Your task to perform on an android device: Set the phone to "Do not disturb". Image 0: 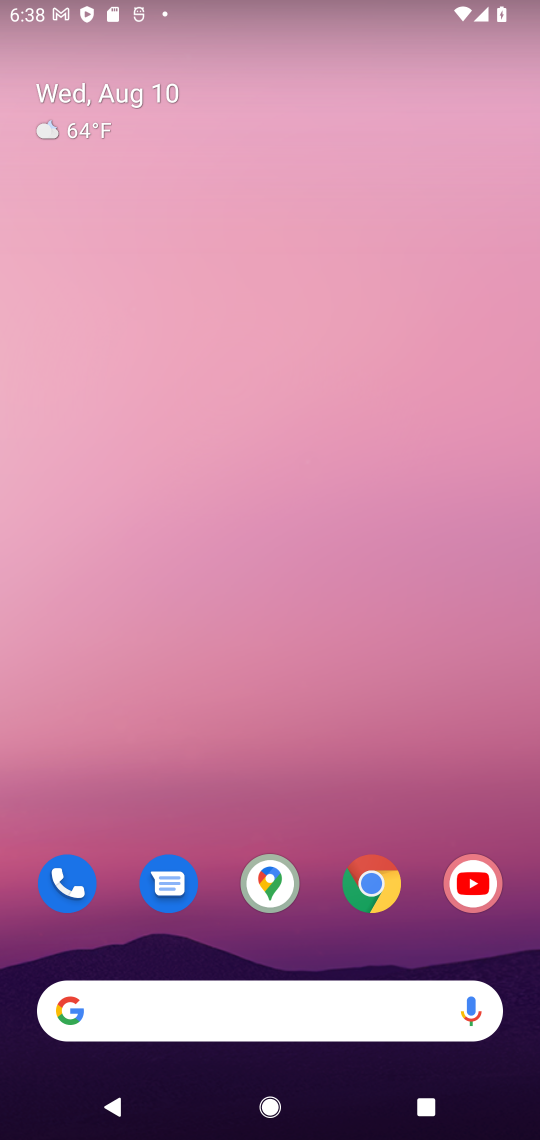
Step 0: drag from (335, 908) to (376, 25)
Your task to perform on an android device: Set the phone to "Do not disturb". Image 1: 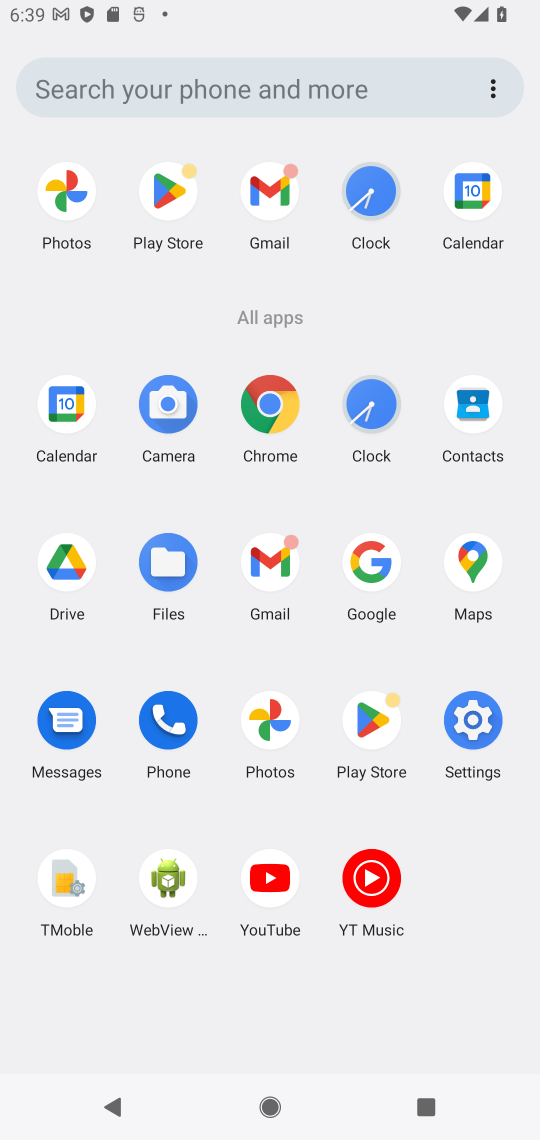
Step 1: drag from (297, 5) to (231, 662)
Your task to perform on an android device: Set the phone to "Do not disturb". Image 2: 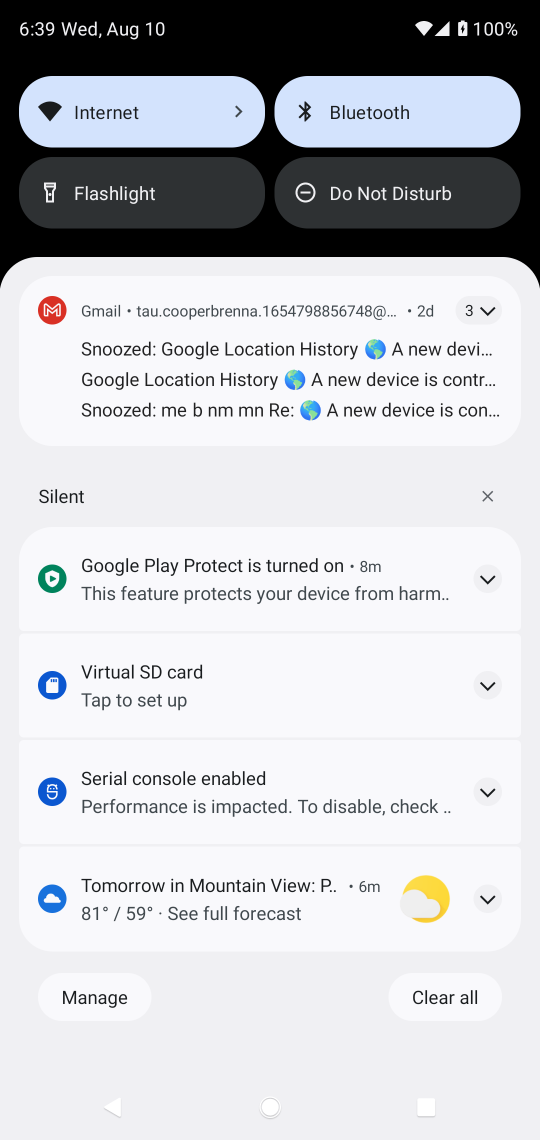
Step 2: click (308, 195)
Your task to perform on an android device: Set the phone to "Do not disturb". Image 3: 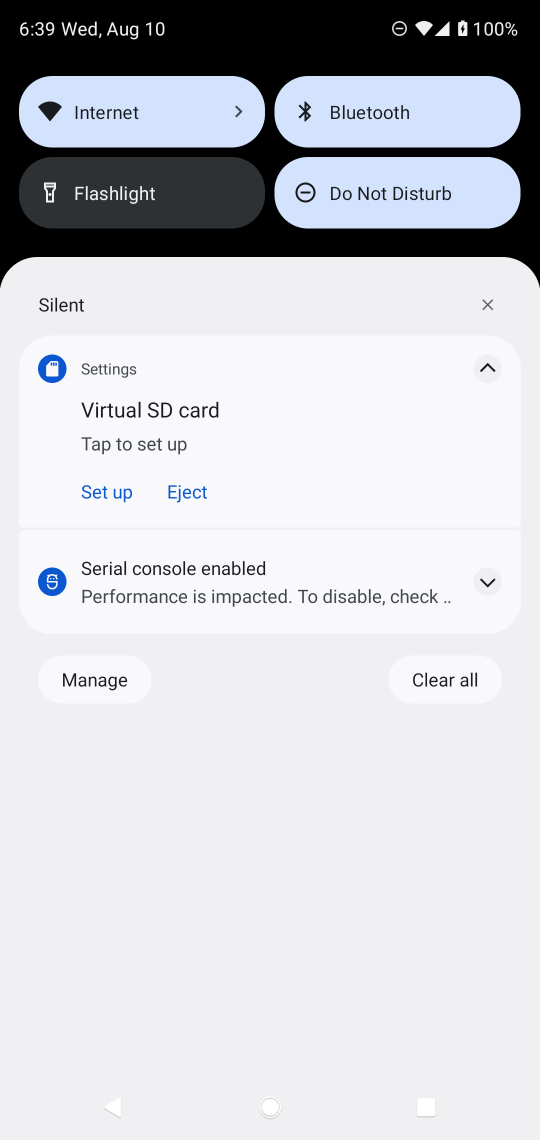
Step 3: task complete